Your task to perform on an android device: Open the web browser Image 0: 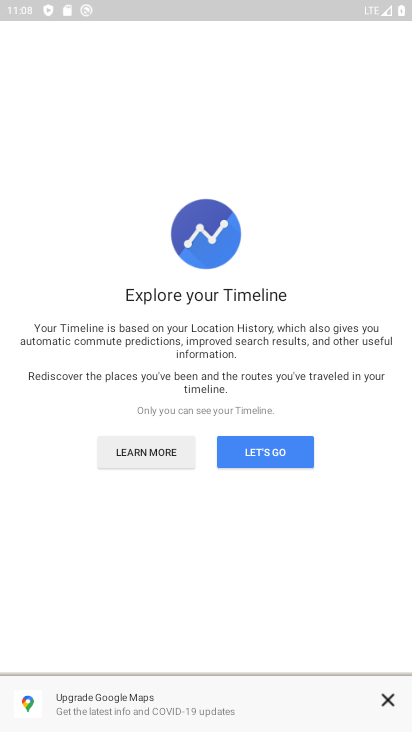
Step 0: press home button
Your task to perform on an android device: Open the web browser Image 1: 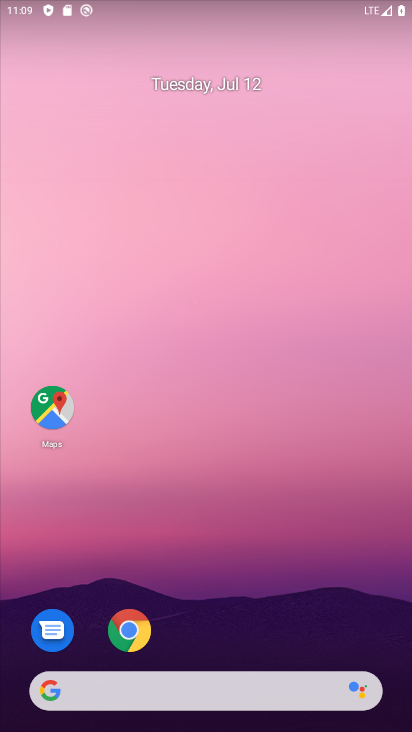
Step 1: drag from (401, 679) to (253, 25)
Your task to perform on an android device: Open the web browser Image 2: 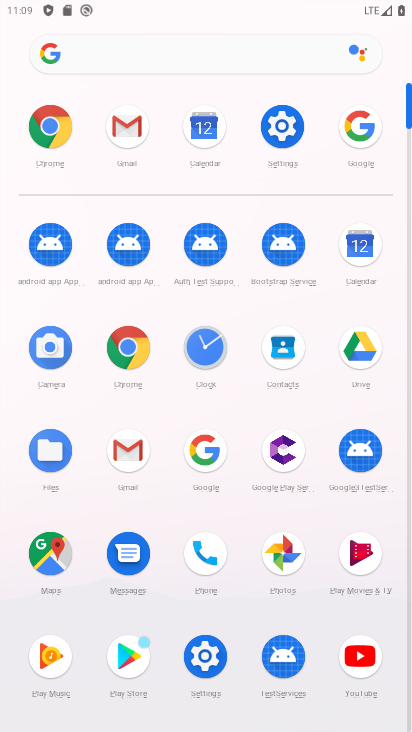
Step 2: click (214, 446)
Your task to perform on an android device: Open the web browser Image 3: 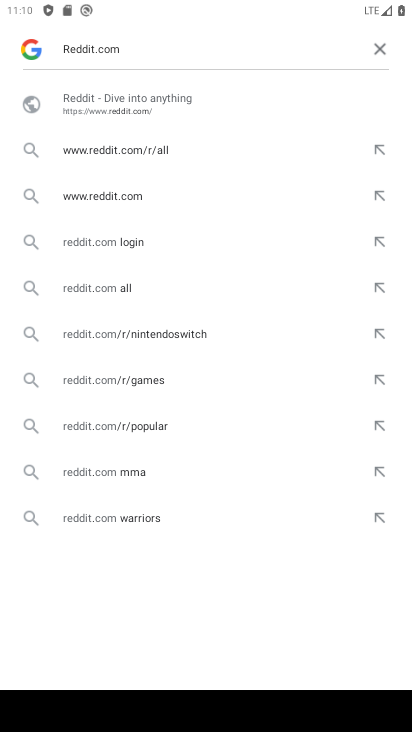
Step 3: click (381, 45)
Your task to perform on an android device: Open the web browser Image 4: 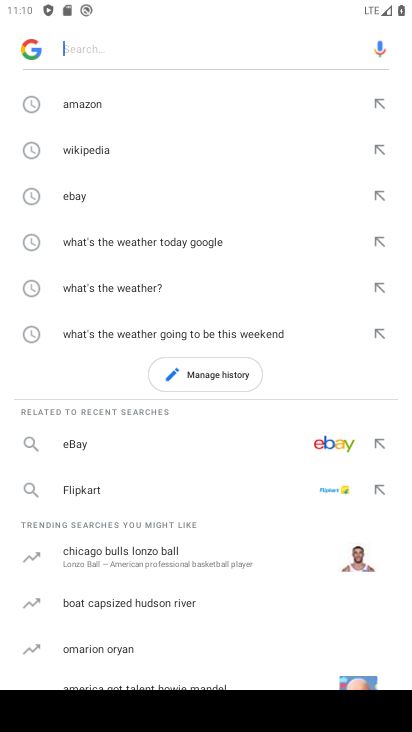
Step 4: type "web browser"
Your task to perform on an android device: Open the web browser Image 5: 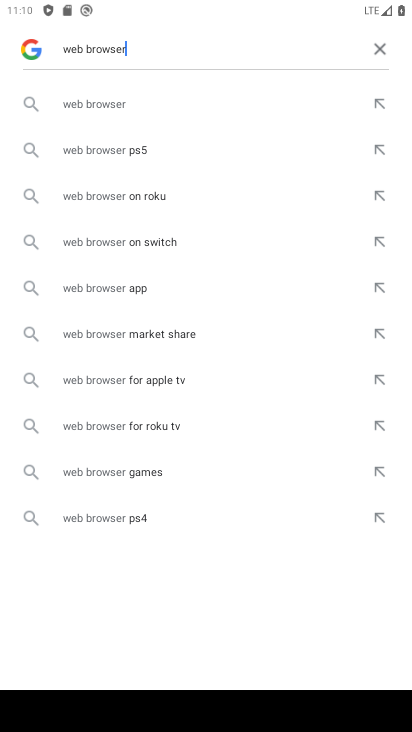
Step 5: click (110, 113)
Your task to perform on an android device: Open the web browser Image 6: 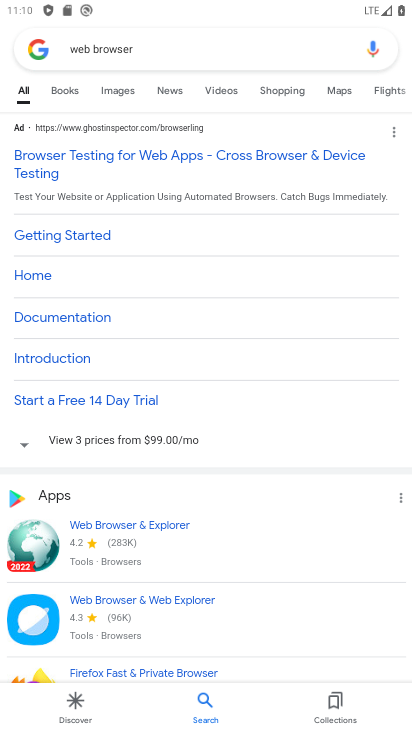
Step 6: task complete